Your task to perform on an android device: Open Google Image 0: 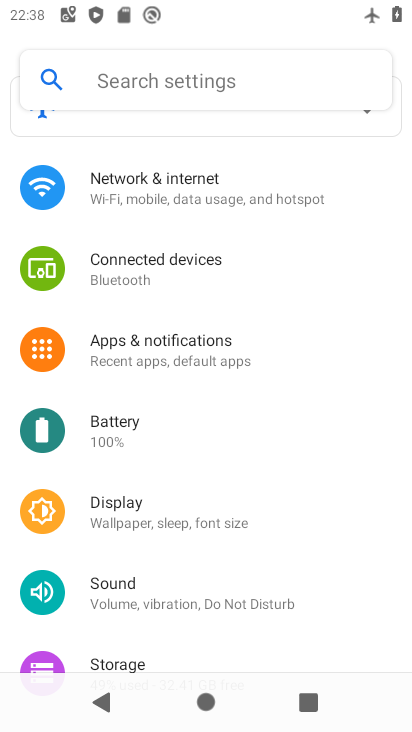
Step 0: press home button
Your task to perform on an android device: Open Google Image 1: 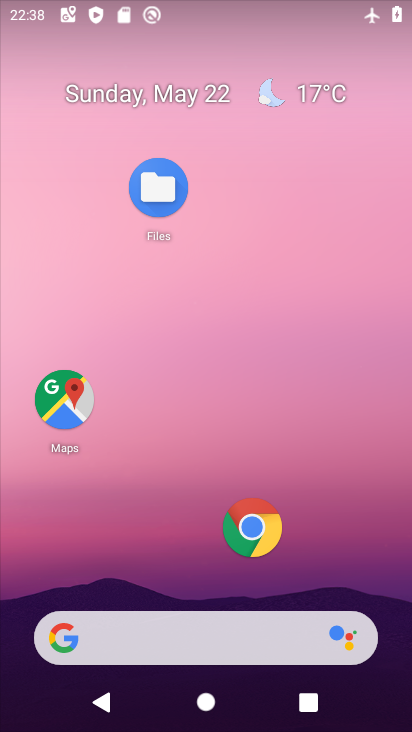
Step 1: click (119, 632)
Your task to perform on an android device: Open Google Image 2: 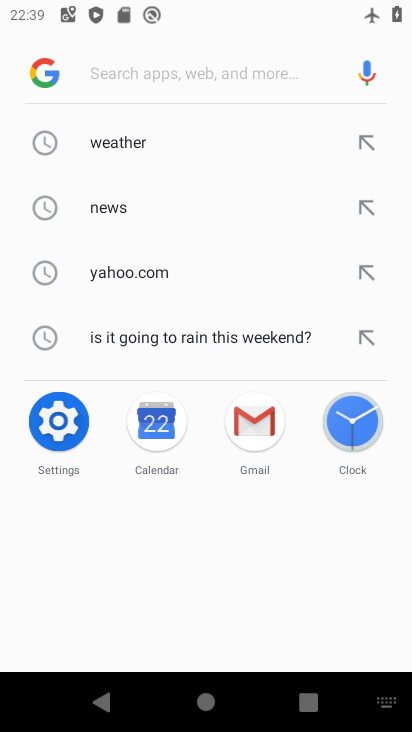
Step 2: task complete